Your task to perform on an android device: When is my next meeting? Image 0: 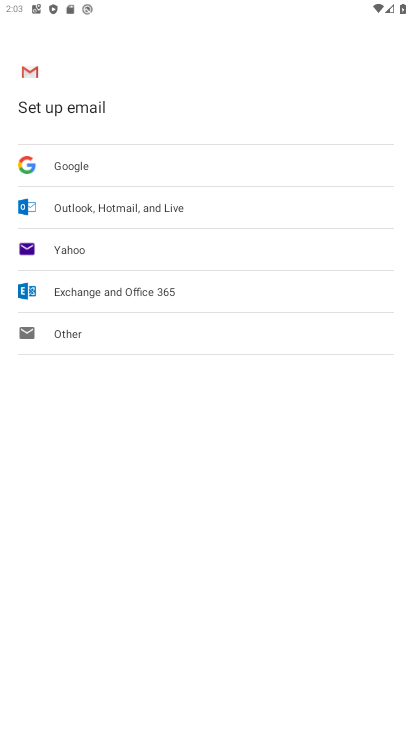
Step 0: press home button
Your task to perform on an android device: When is my next meeting? Image 1: 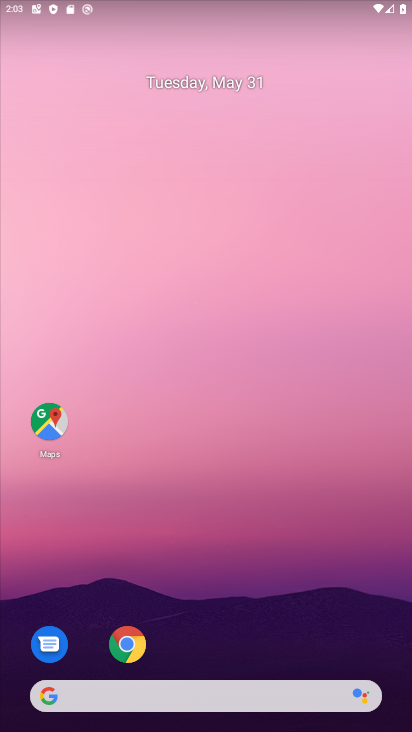
Step 1: drag from (395, 679) to (330, 113)
Your task to perform on an android device: When is my next meeting? Image 2: 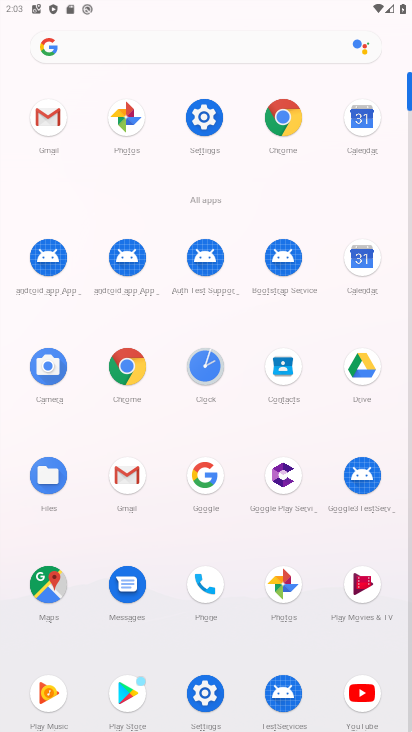
Step 2: click (360, 267)
Your task to perform on an android device: When is my next meeting? Image 3: 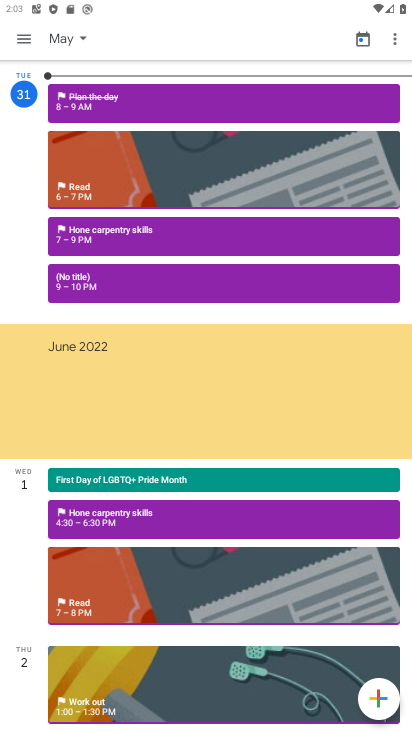
Step 3: task complete